Your task to perform on an android device: delete location history Image 0: 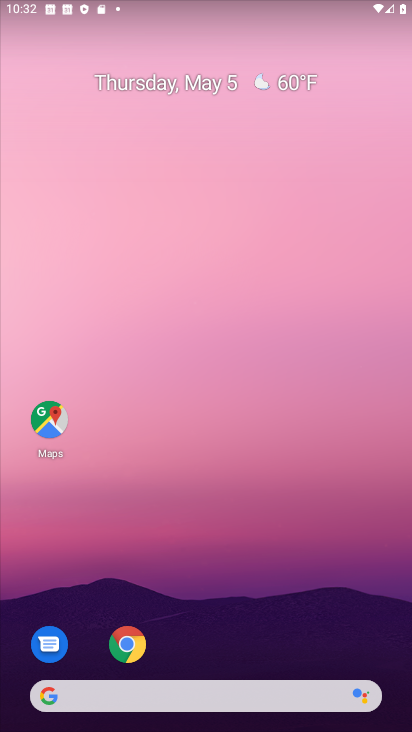
Step 0: click (143, 719)
Your task to perform on an android device: delete location history Image 1: 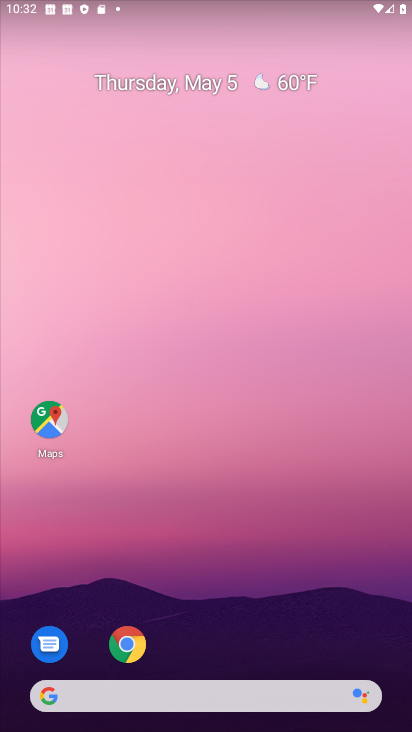
Step 1: drag from (187, 653) to (165, 146)
Your task to perform on an android device: delete location history Image 2: 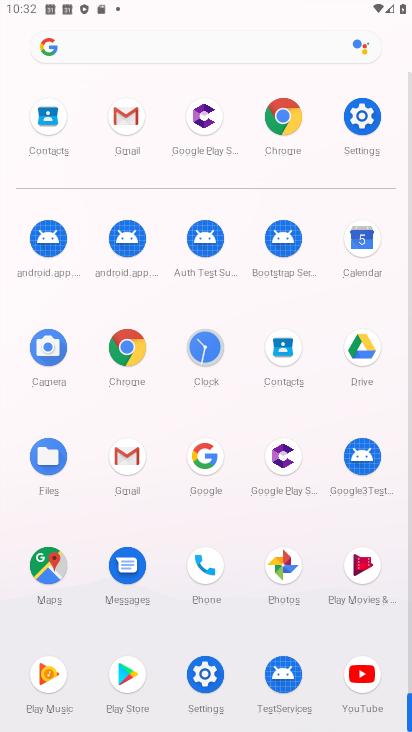
Step 2: click (368, 101)
Your task to perform on an android device: delete location history Image 3: 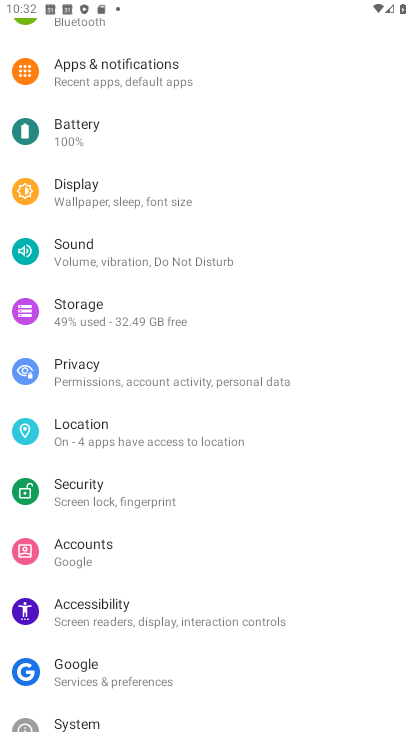
Step 3: drag from (151, 595) to (236, 96)
Your task to perform on an android device: delete location history Image 4: 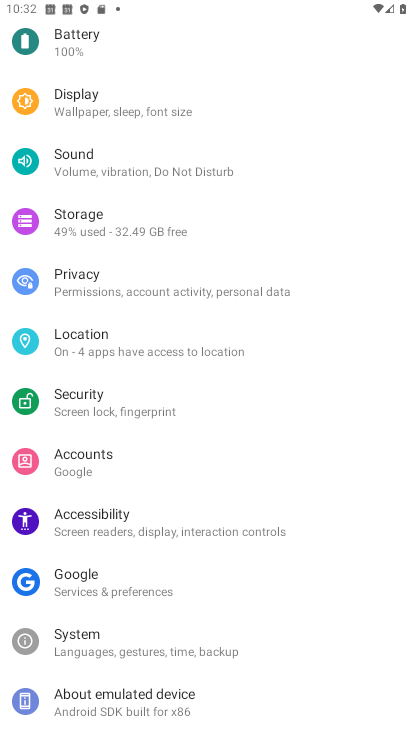
Step 4: drag from (183, 677) to (236, 215)
Your task to perform on an android device: delete location history Image 5: 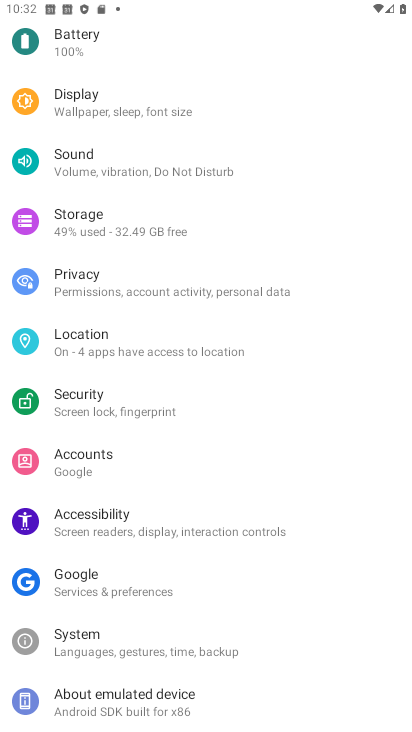
Step 5: click (99, 338)
Your task to perform on an android device: delete location history Image 6: 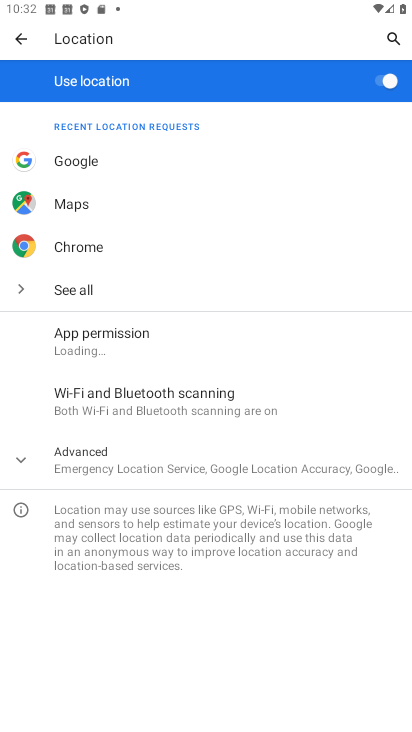
Step 6: drag from (198, 523) to (200, 178)
Your task to perform on an android device: delete location history Image 7: 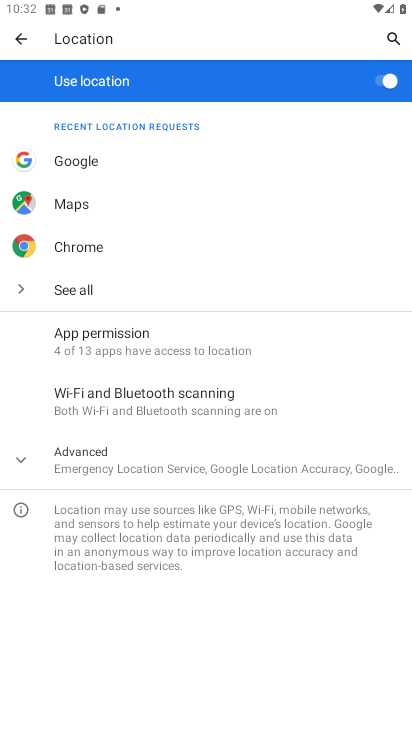
Step 7: drag from (168, 553) to (191, 145)
Your task to perform on an android device: delete location history Image 8: 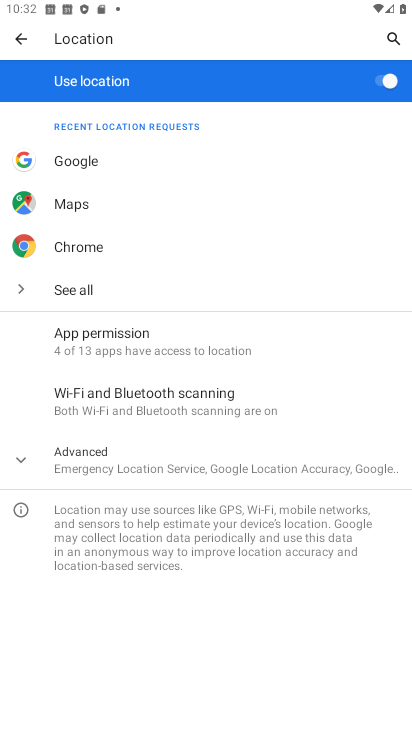
Step 8: drag from (209, 514) to (214, 322)
Your task to perform on an android device: delete location history Image 9: 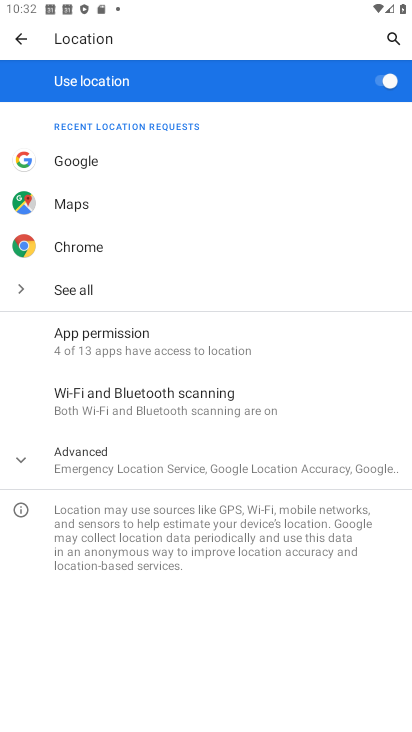
Step 9: drag from (179, 501) to (211, 213)
Your task to perform on an android device: delete location history Image 10: 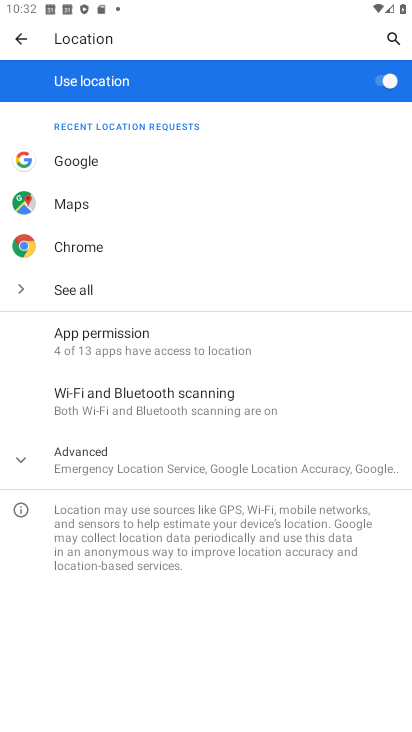
Step 10: click (103, 457)
Your task to perform on an android device: delete location history Image 11: 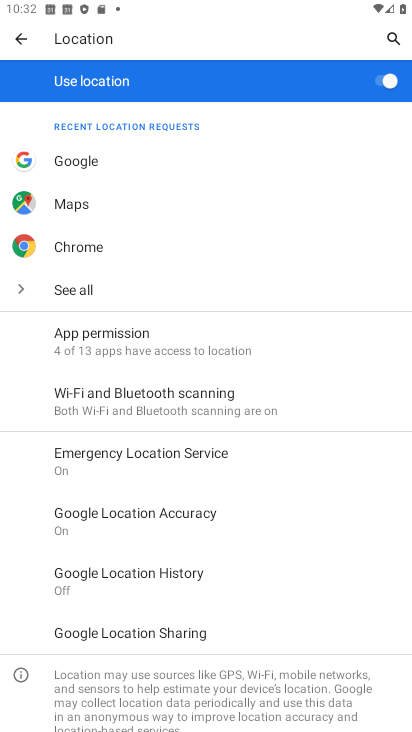
Step 11: click (135, 579)
Your task to perform on an android device: delete location history Image 12: 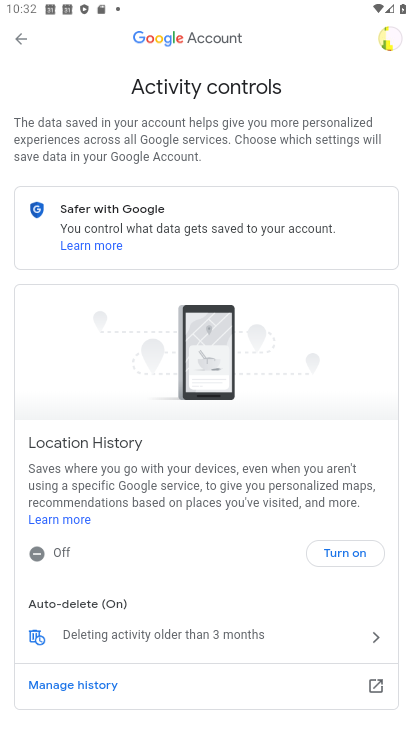
Step 12: click (54, 630)
Your task to perform on an android device: delete location history Image 13: 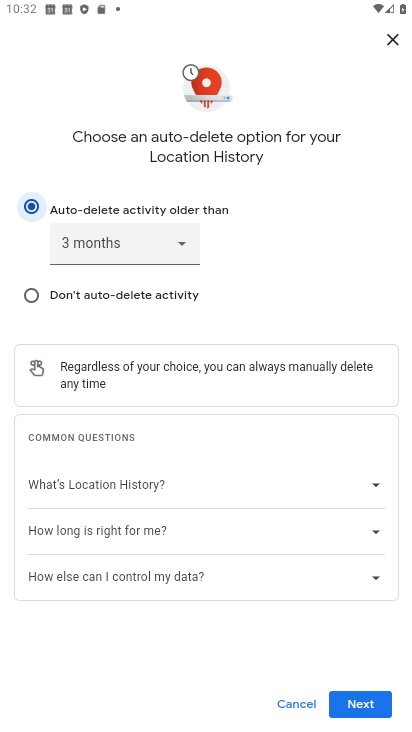
Step 13: click (364, 708)
Your task to perform on an android device: delete location history Image 14: 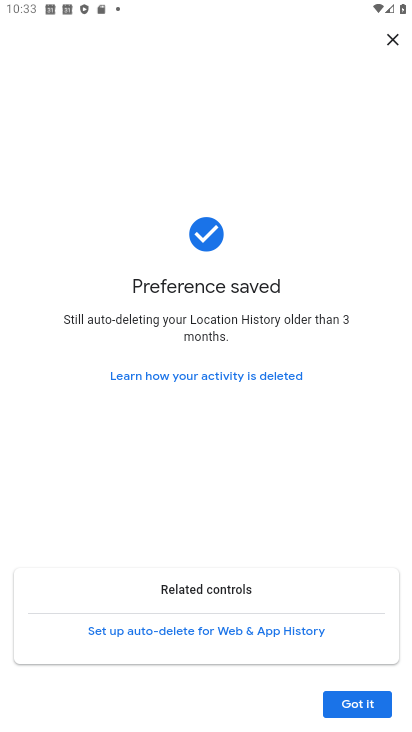
Step 14: click (365, 703)
Your task to perform on an android device: delete location history Image 15: 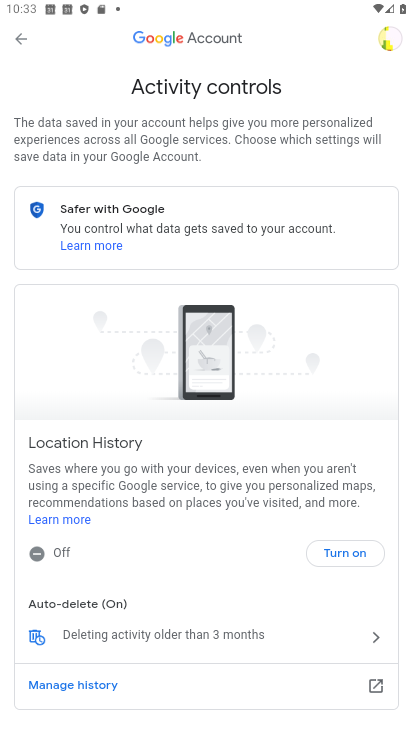
Step 15: click (33, 634)
Your task to perform on an android device: delete location history Image 16: 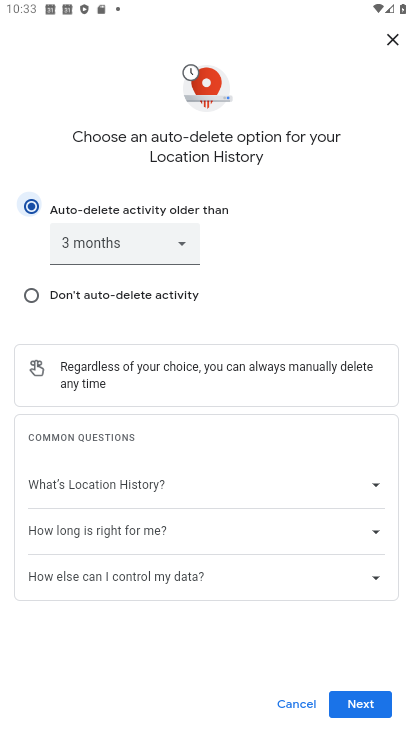
Step 16: click (360, 718)
Your task to perform on an android device: delete location history Image 17: 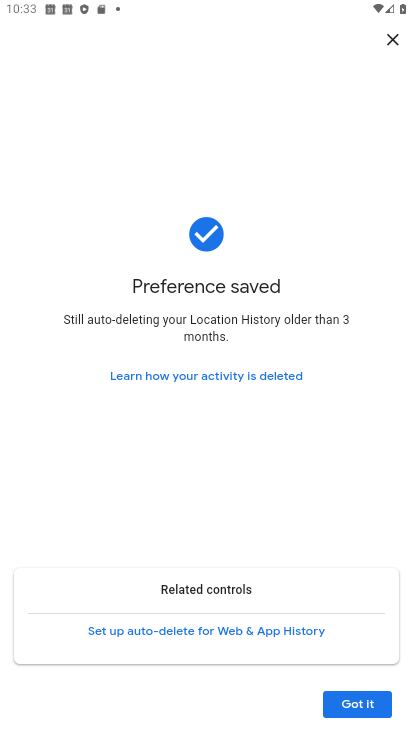
Step 17: click (368, 711)
Your task to perform on an android device: delete location history Image 18: 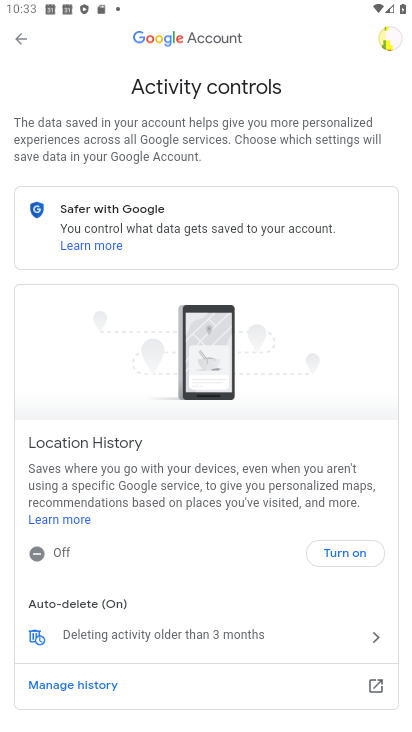
Step 18: task complete